Your task to perform on an android device: clear all cookies in the chrome app Image 0: 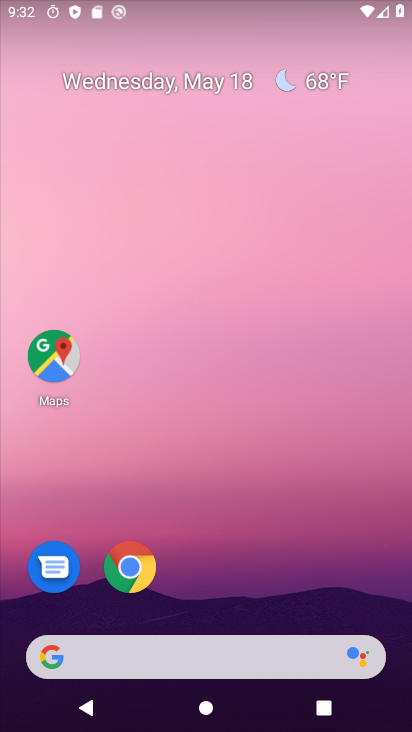
Step 0: click (112, 578)
Your task to perform on an android device: clear all cookies in the chrome app Image 1: 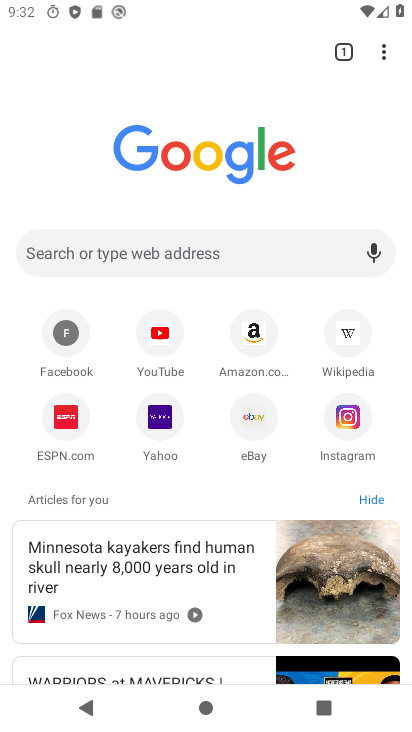
Step 1: click (382, 47)
Your task to perform on an android device: clear all cookies in the chrome app Image 2: 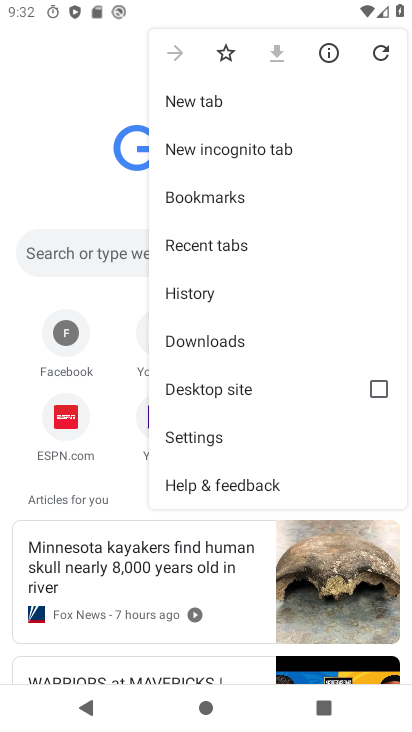
Step 2: click (237, 428)
Your task to perform on an android device: clear all cookies in the chrome app Image 3: 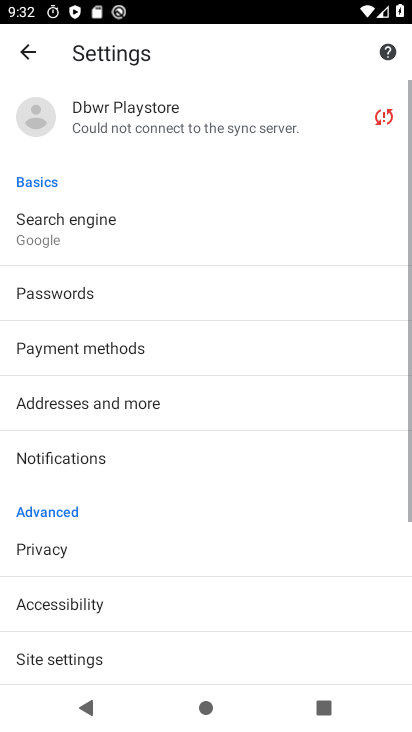
Step 3: drag from (217, 572) to (273, 132)
Your task to perform on an android device: clear all cookies in the chrome app Image 4: 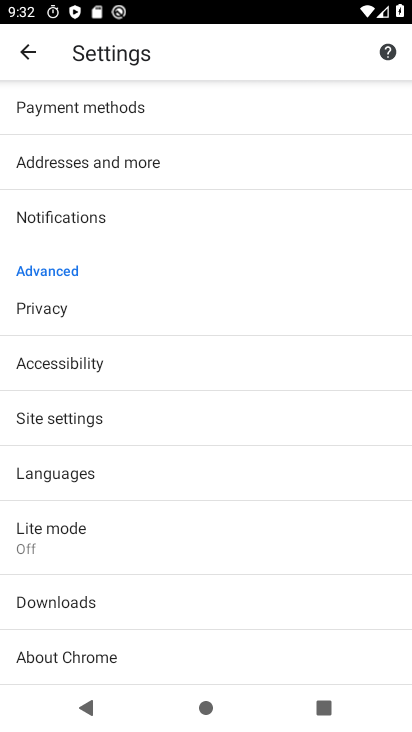
Step 4: click (165, 312)
Your task to perform on an android device: clear all cookies in the chrome app Image 5: 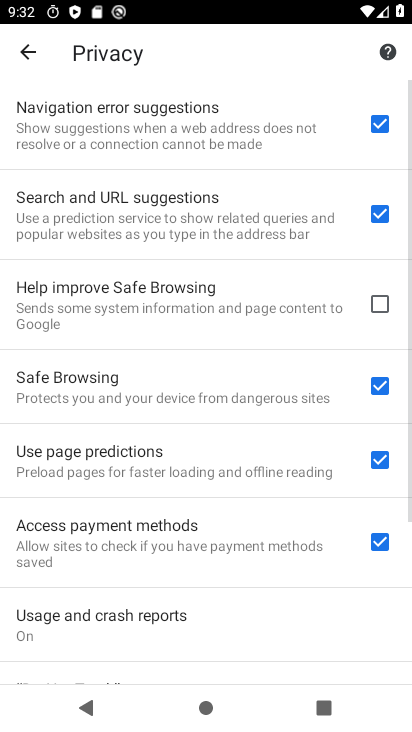
Step 5: drag from (221, 609) to (266, 199)
Your task to perform on an android device: clear all cookies in the chrome app Image 6: 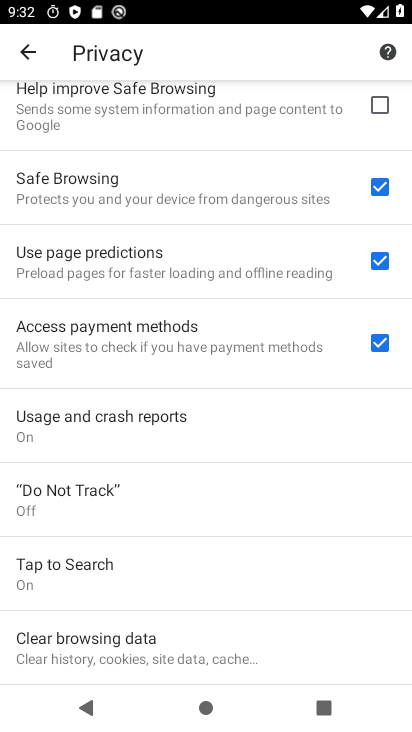
Step 6: click (180, 641)
Your task to perform on an android device: clear all cookies in the chrome app Image 7: 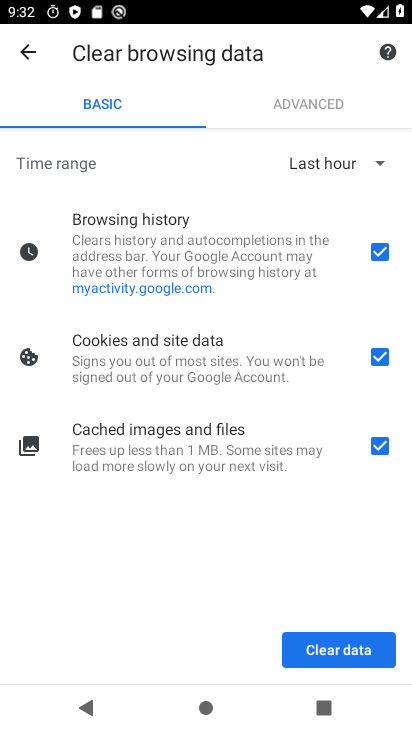
Step 7: click (366, 645)
Your task to perform on an android device: clear all cookies in the chrome app Image 8: 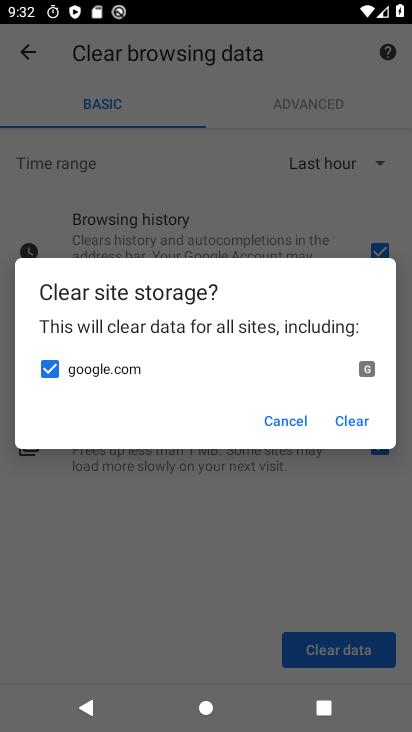
Step 8: click (368, 422)
Your task to perform on an android device: clear all cookies in the chrome app Image 9: 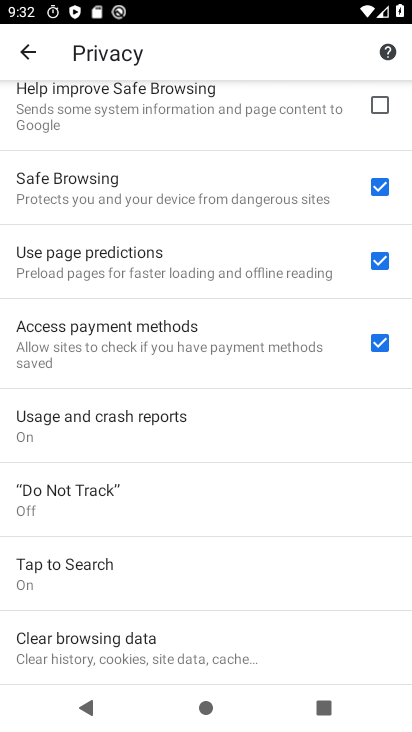
Step 9: task complete